Your task to perform on an android device: Open Google Maps Image 0: 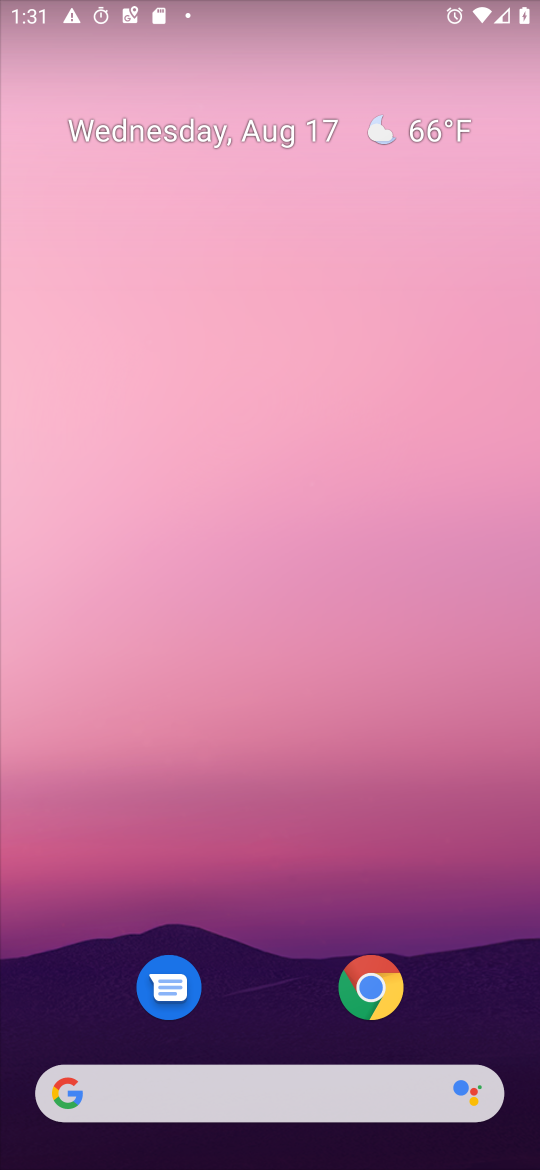
Step 0: click (348, 978)
Your task to perform on an android device: Open Google Maps Image 1: 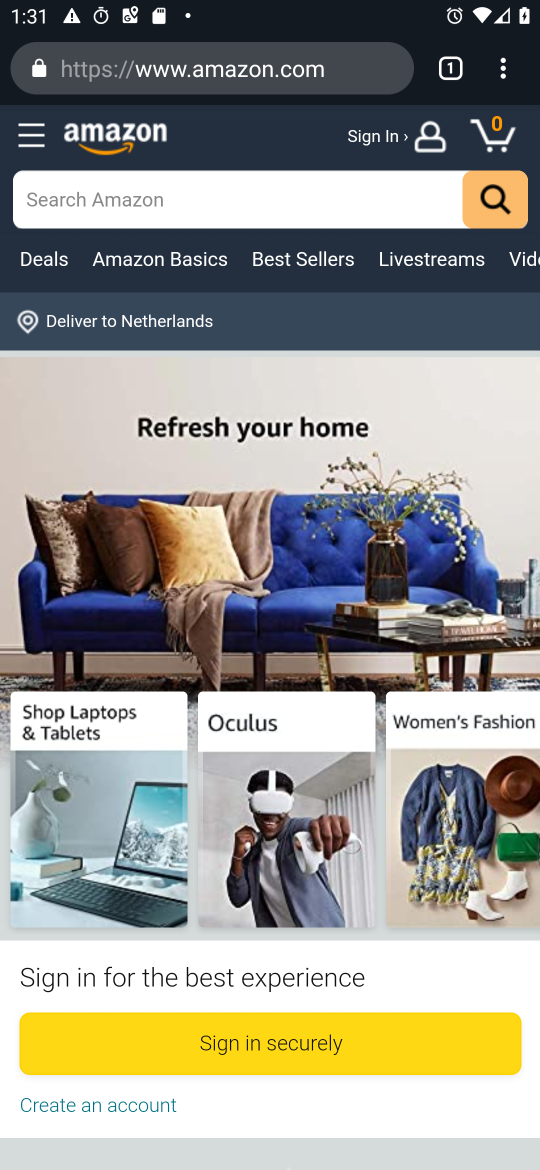
Step 1: press home button
Your task to perform on an android device: Open Google Maps Image 2: 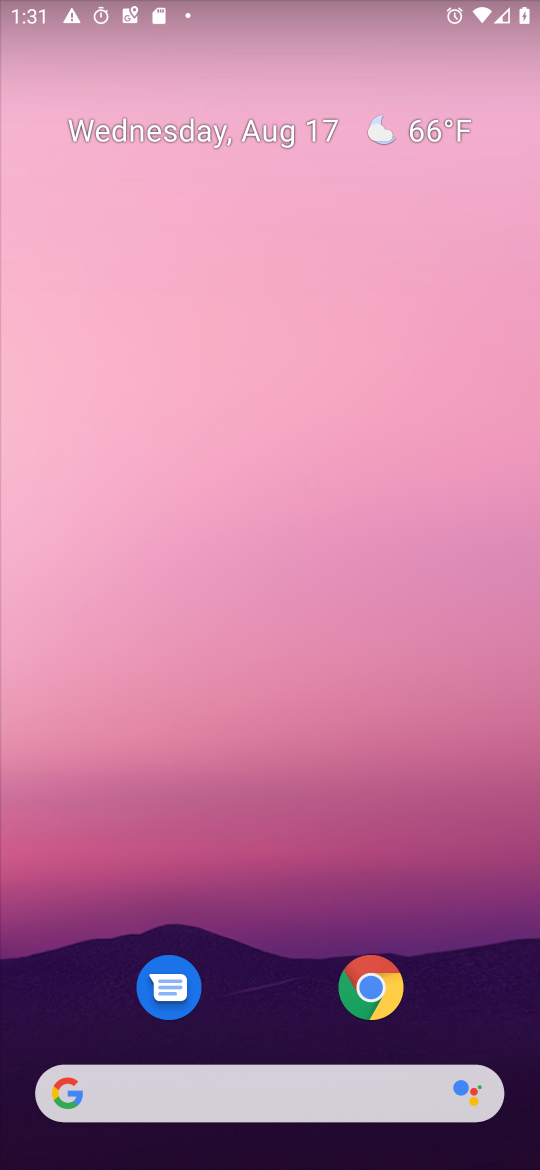
Step 2: drag from (37, 1135) to (412, 439)
Your task to perform on an android device: Open Google Maps Image 3: 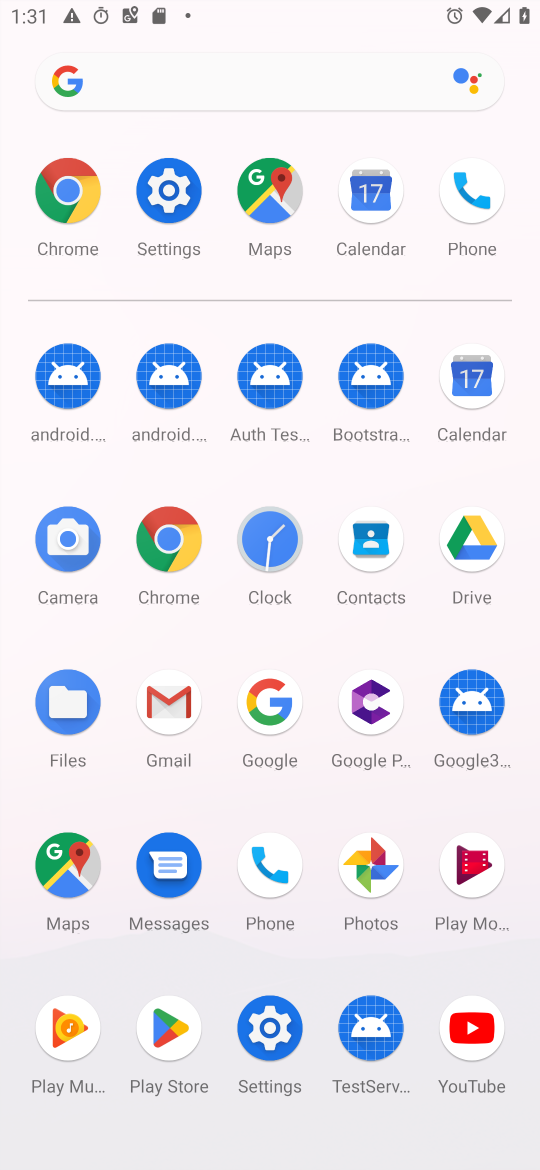
Step 3: click (61, 863)
Your task to perform on an android device: Open Google Maps Image 4: 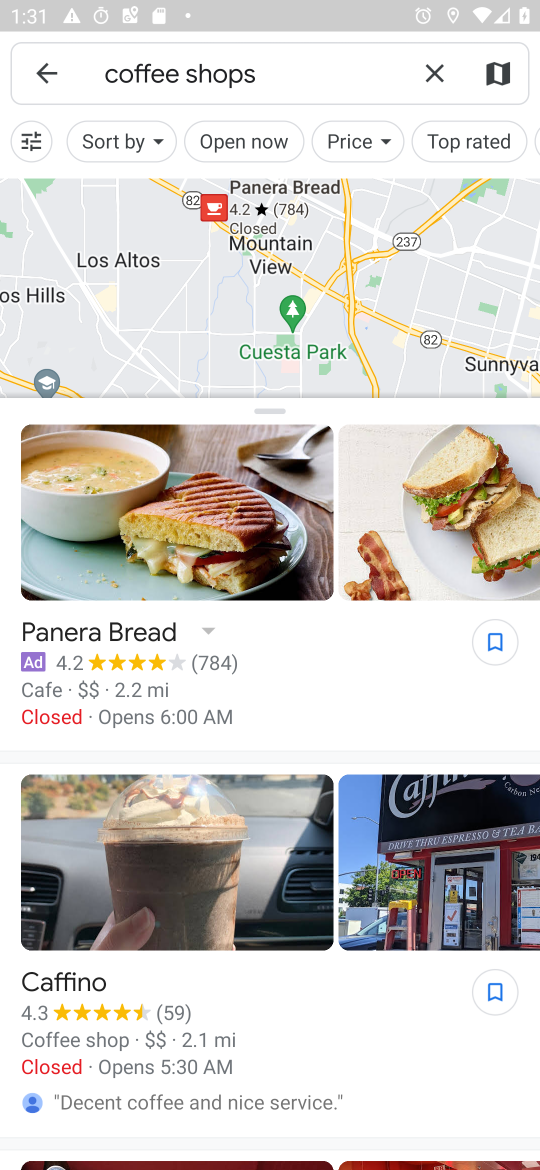
Step 4: click (43, 66)
Your task to perform on an android device: Open Google Maps Image 5: 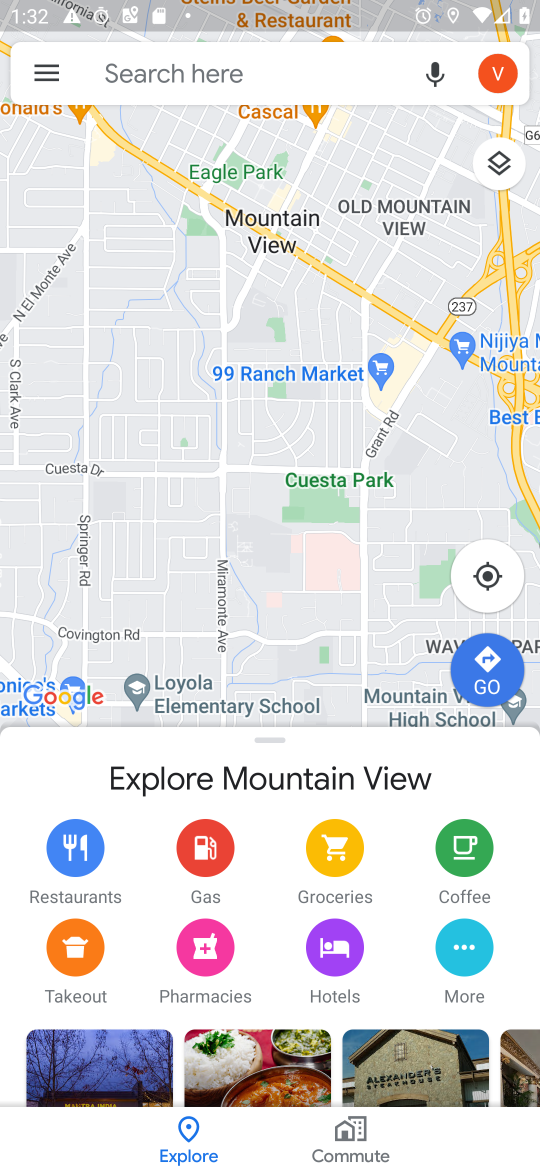
Step 5: task complete